Your task to perform on an android device: open chrome privacy settings Image 0: 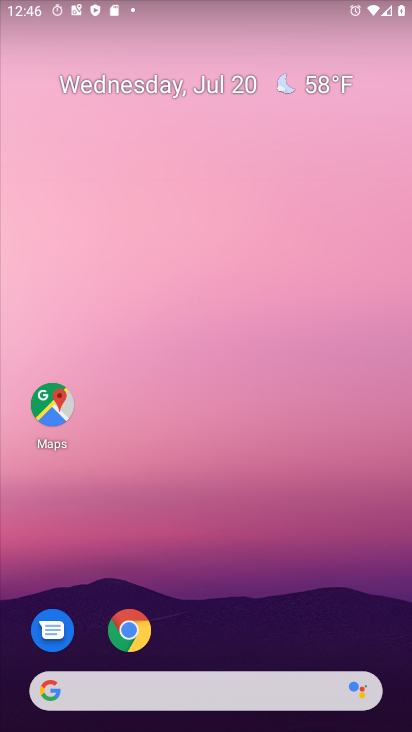
Step 0: press home button
Your task to perform on an android device: open chrome privacy settings Image 1: 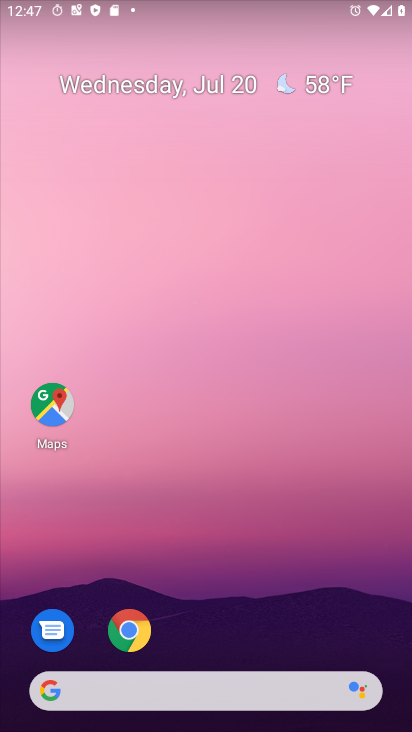
Step 1: click (123, 625)
Your task to perform on an android device: open chrome privacy settings Image 2: 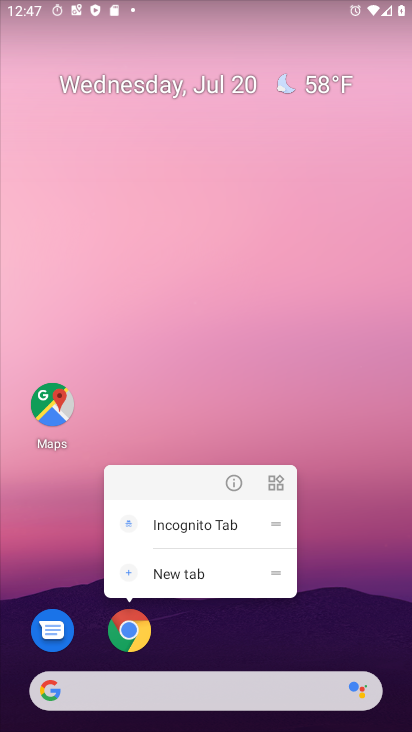
Step 2: click (127, 627)
Your task to perform on an android device: open chrome privacy settings Image 3: 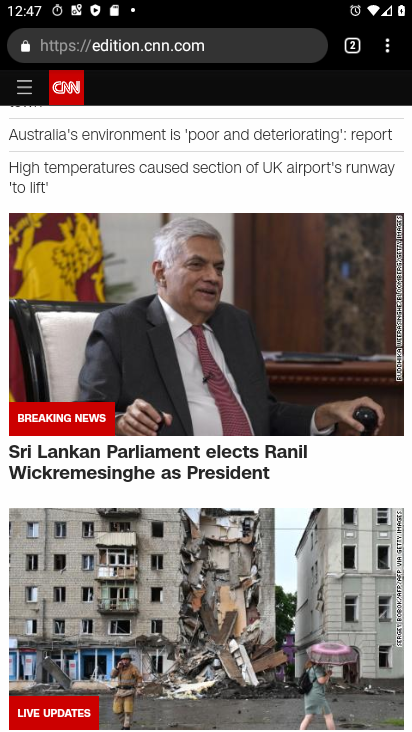
Step 3: drag from (386, 46) to (261, 514)
Your task to perform on an android device: open chrome privacy settings Image 4: 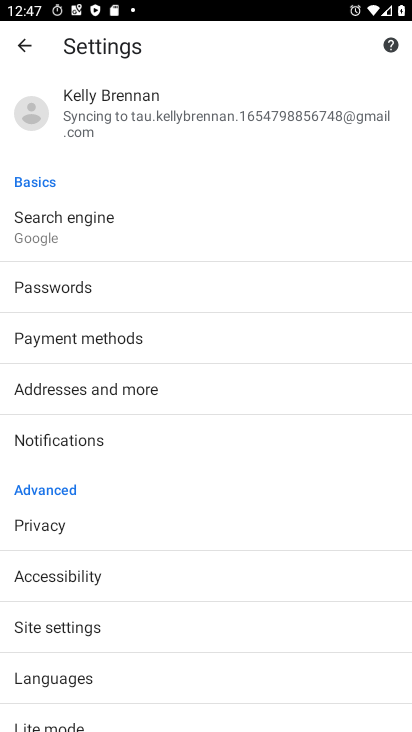
Step 4: click (40, 521)
Your task to perform on an android device: open chrome privacy settings Image 5: 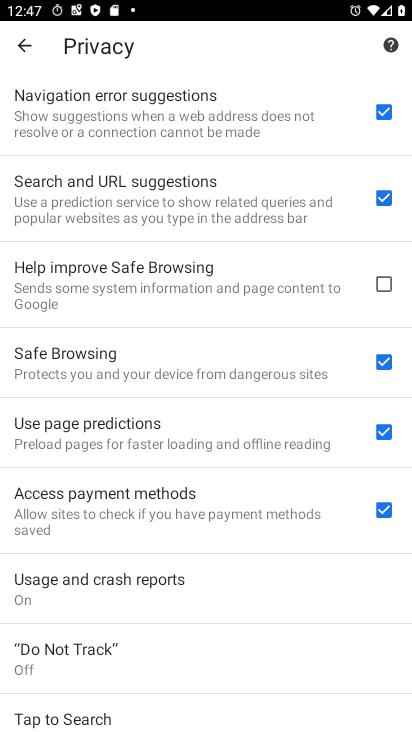
Step 5: task complete